Your task to perform on an android device: turn off sleep mode Image 0: 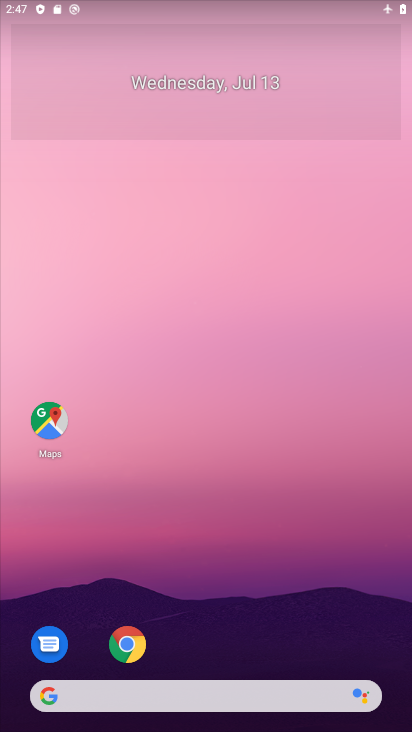
Step 0: drag from (208, 682) to (189, 201)
Your task to perform on an android device: turn off sleep mode Image 1: 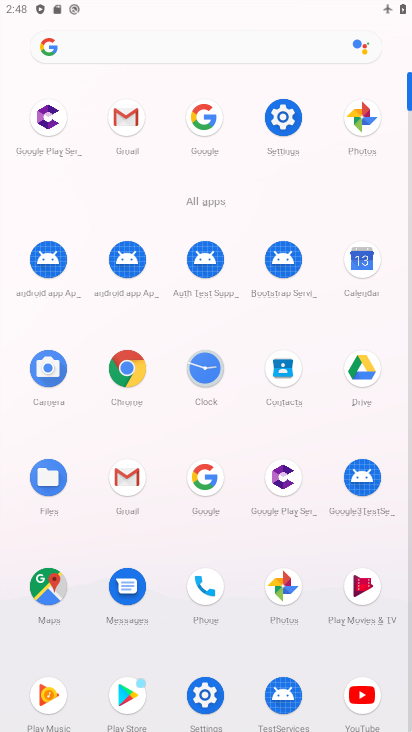
Step 1: click (204, 695)
Your task to perform on an android device: turn off sleep mode Image 2: 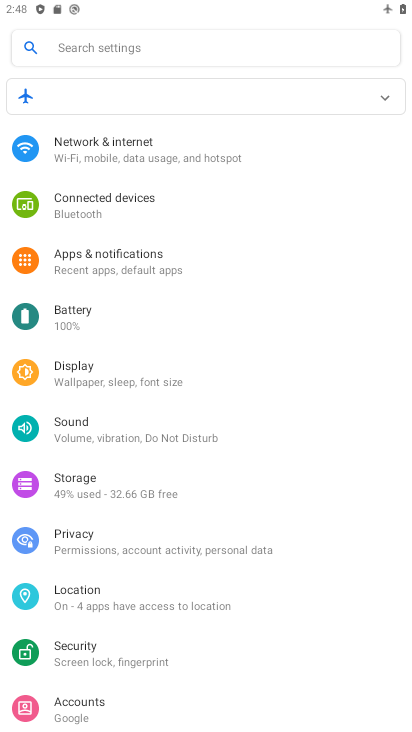
Step 2: click (100, 155)
Your task to perform on an android device: turn off sleep mode Image 3: 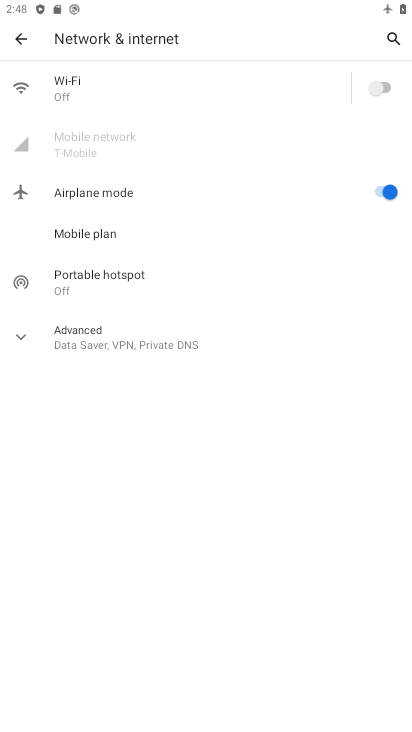
Step 3: press back button
Your task to perform on an android device: turn off sleep mode Image 4: 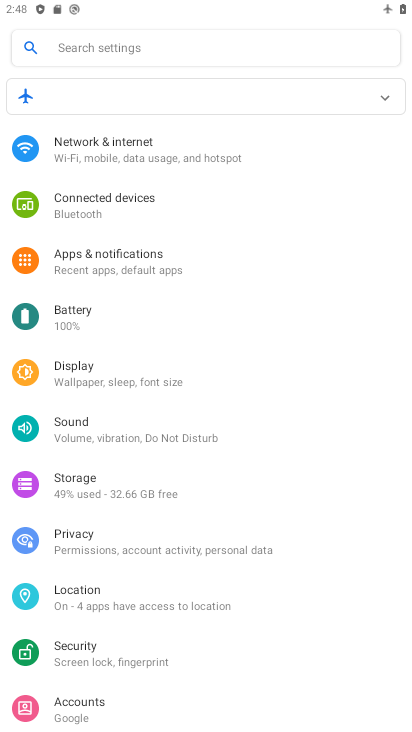
Step 4: click (89, 379)
Your task to perform on an android device: turn off sleep mode Image 5: 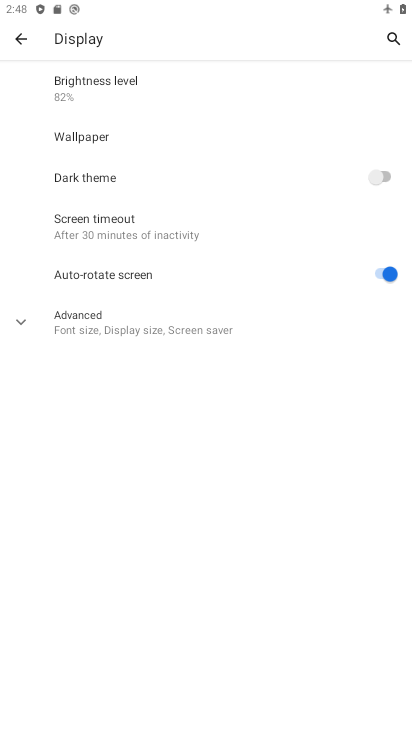
Step 5: click (98, 326)
Your task to perform on an android device: turn off sleep mode Image 6: 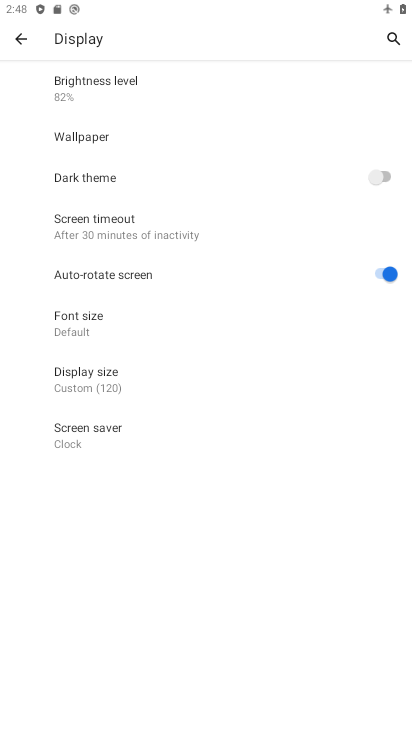
Step 6: task complete